Your task to perform on an android device: Open notification settings Image 0: 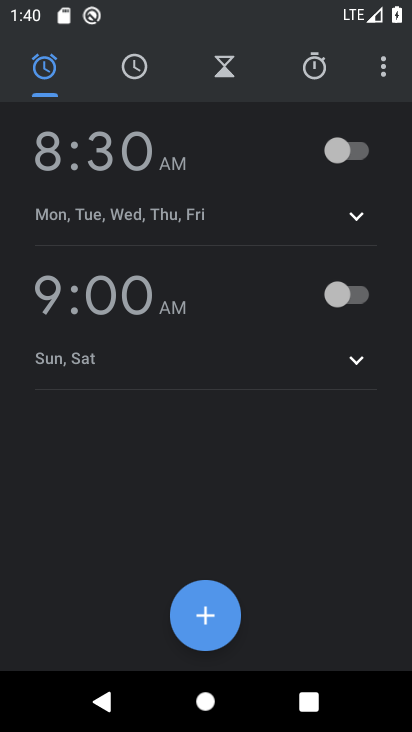
Step 0: press home button
Your task to perform on an android device: Open notification settings Image 1: 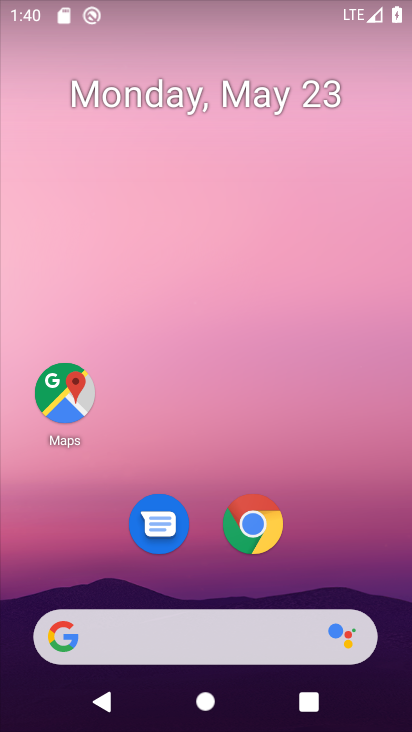
Step 1: drag from (237, 422) to (247, 11)
Your task to perform on an android device: Open notification settings Image 2: 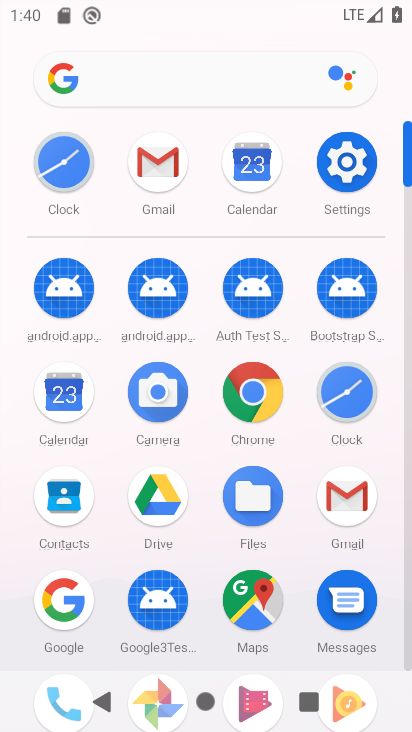
Step 2: click (345, 160)
Your task to perform on an android device: Open notification settings Image 3: 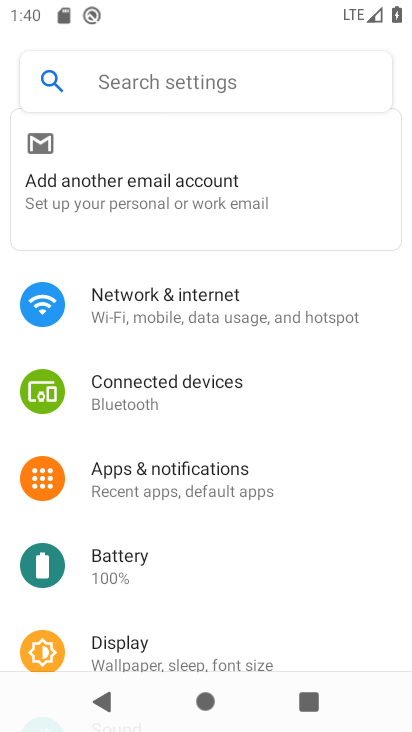
Step 3: click (197, 469)
Your task to perform on an android device: Open notification settings Image 4: 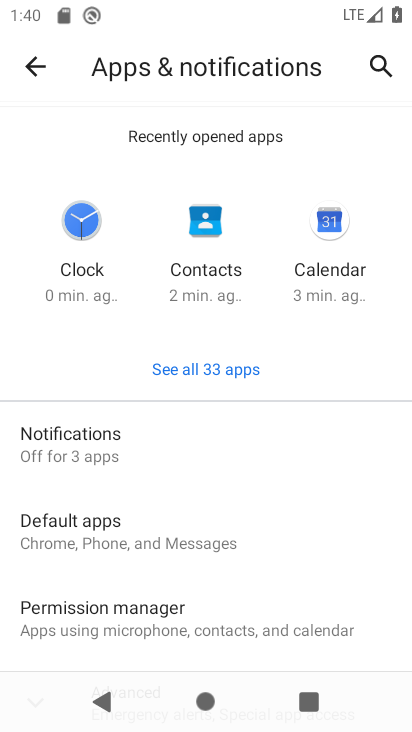
Step 4: click (182, 450)
Your task to perform on an android device: Open notification settings Image 5: 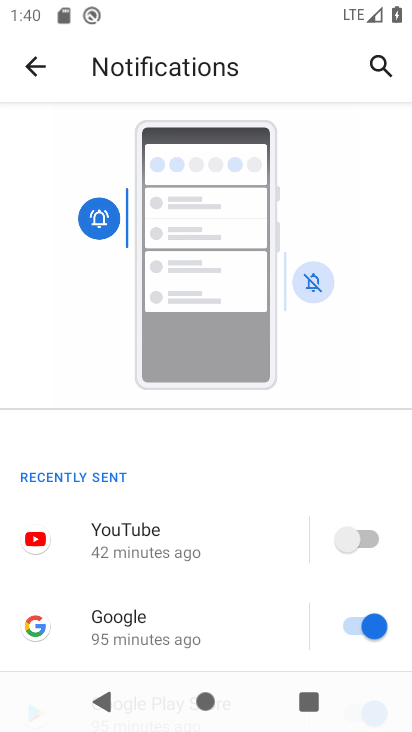
Step 5: task complete